Your task to perform on an android device: turn off data saver in the chrome app Image 0: 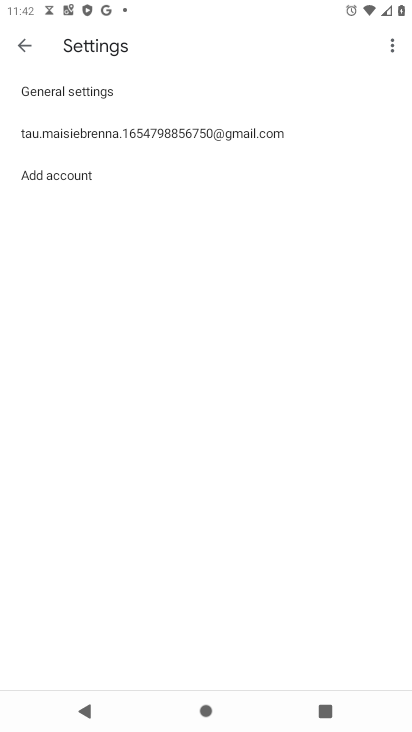
Step 0: press home button
Your task to perform on an android device: turn off data saver in the chrome app Image 1: 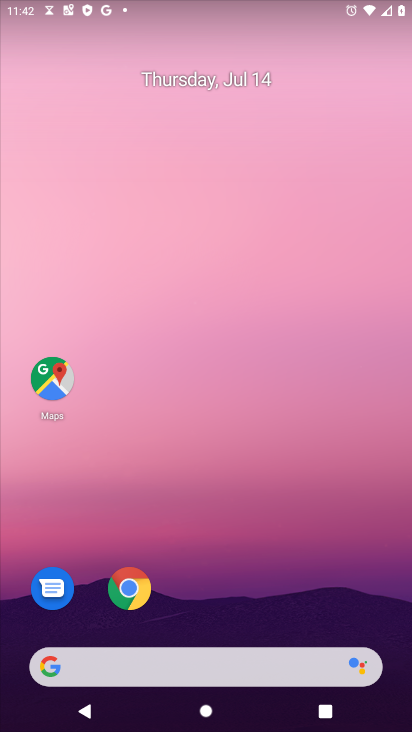
Step 1: click (128, 583)
Your task to perform on an android device: turn off data saver in the chrome app Image 2: 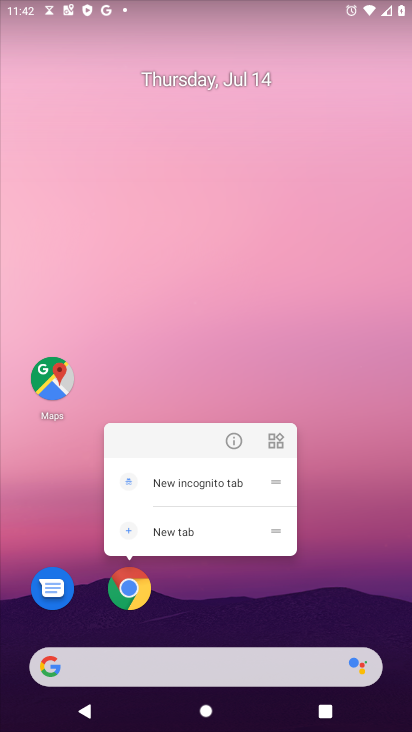
Step 2: click (140, 588)
Your task to perform on an android device: turn off data saver in the chrome app Image 3: 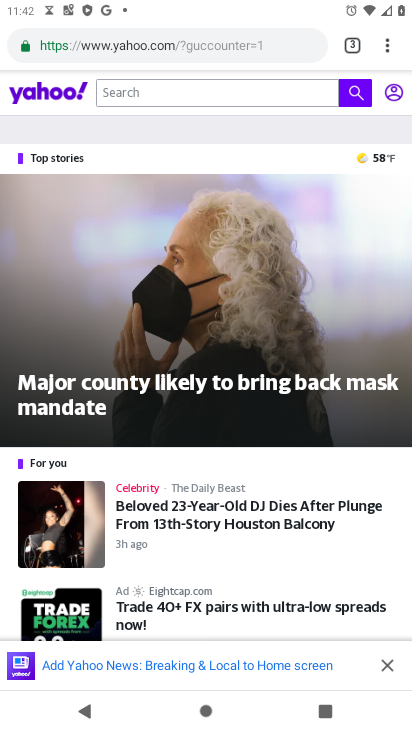
Step 3: drag from (389, 44) to (275, 559)
Your task to perform on an android device: turn off data saver in the chrome app Image 4: 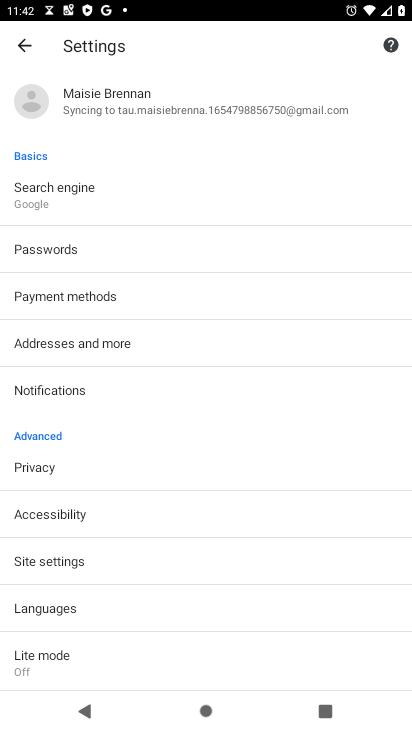
Step 4: drag from (181, 617) to (308, 317)
Your task to perform on an android device: turn off data saver in the chrome app Image 5: 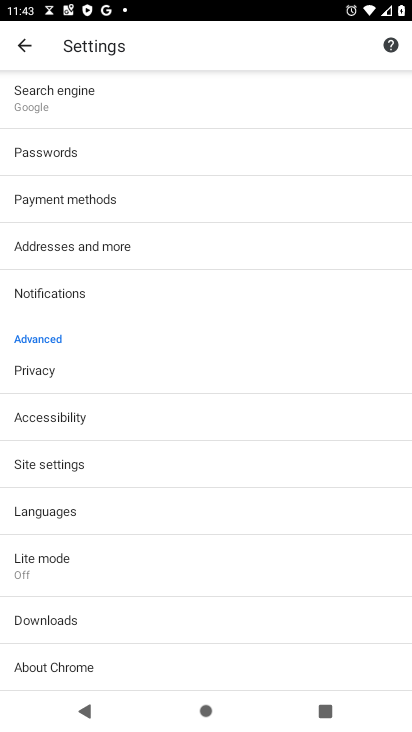
Step 5: click (64, 557)
Your task to perform on an android device: turn off data saver in the chrome app Image 6: 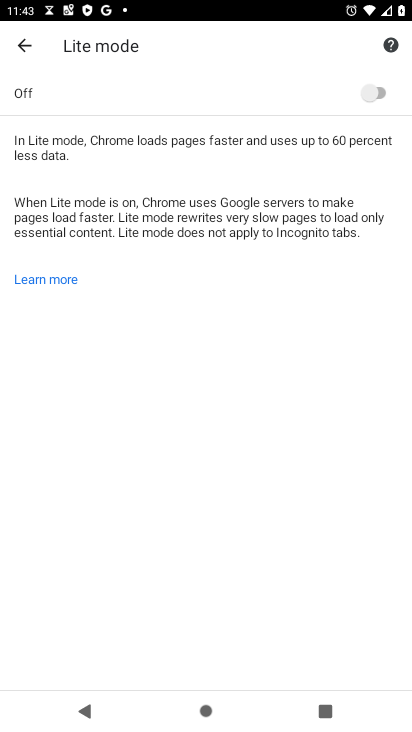
Step 6: task complete